Your task to perform on an android device: star an email in the gmail app Image 0: 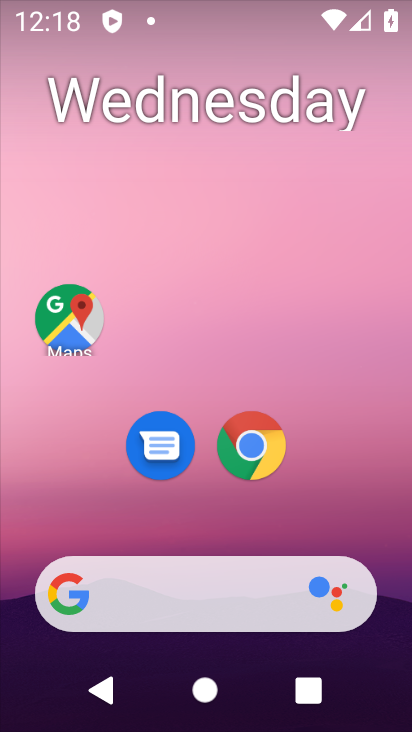
Step 0: drag from (235, 602) to (236, 186)
Your task to perform on an android device: star an email in the gmail app Image 1: 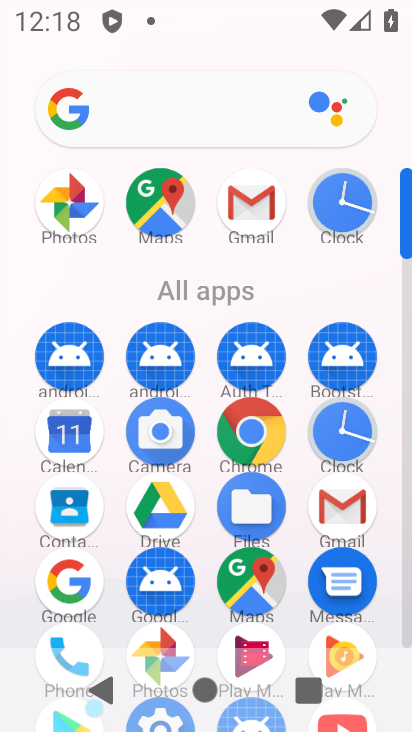
Step 1: click (237, 194)
Your task to perform on an android device: star an email in the gmail app Image 2: 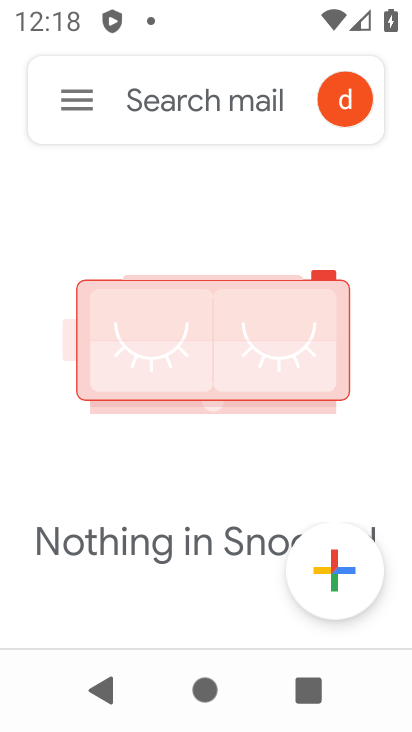
Step 2: click (67, 103)
Your task to perform on an android device: star an email in the gmail app Image 3: 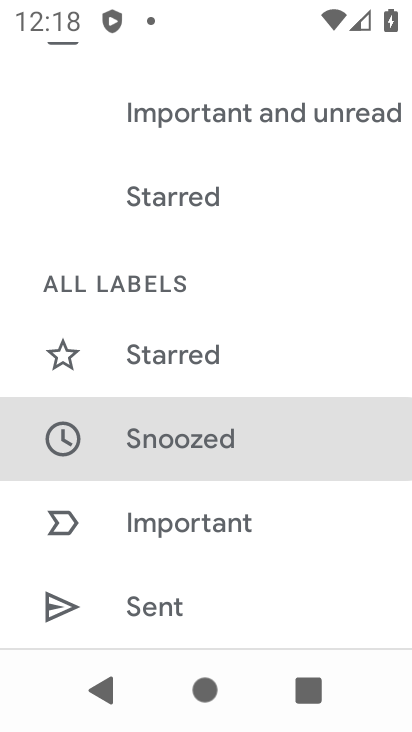
Step 3: drag from (131, 546) to (184, 307)
Your task to perform on an android device: star an email in the gmail app Image 4: 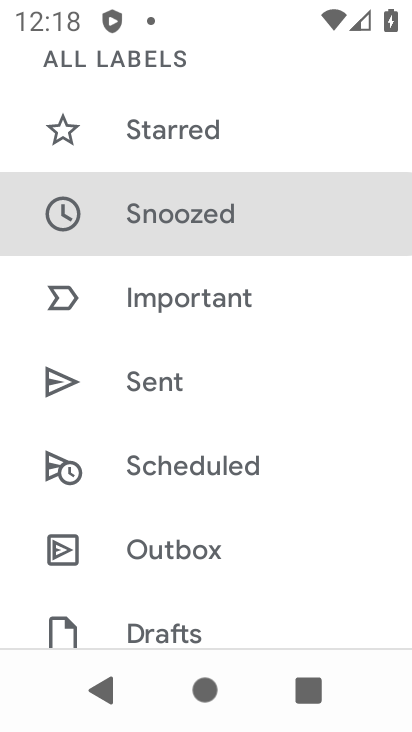
Step 4: drag from (188, 551) to (221, 290)
Your task to perform on an android device: star an email in the gmail app Image 5: 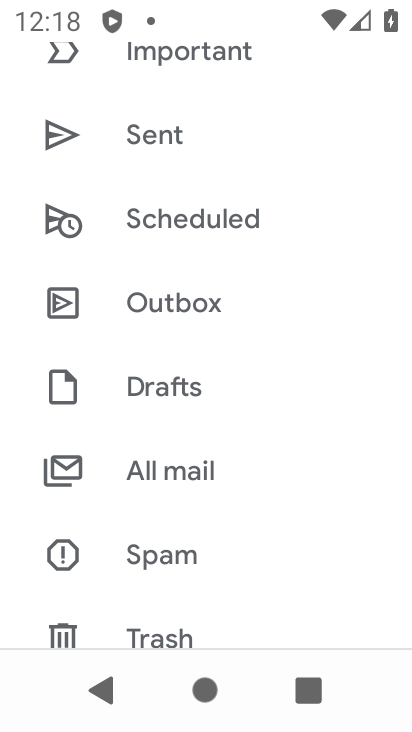
Step 5: click (145, 475)
Your task to perform on an android device: star an email in the gmail app Image 6: 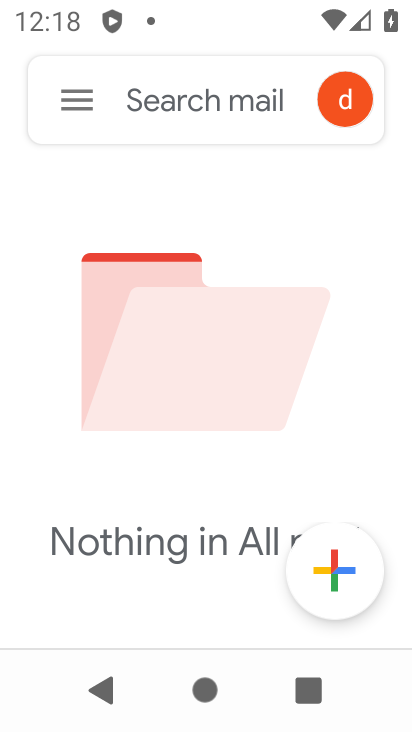
Step 6: task complete